Your task to perform on an android device: find photos in the google photos app Image 0: 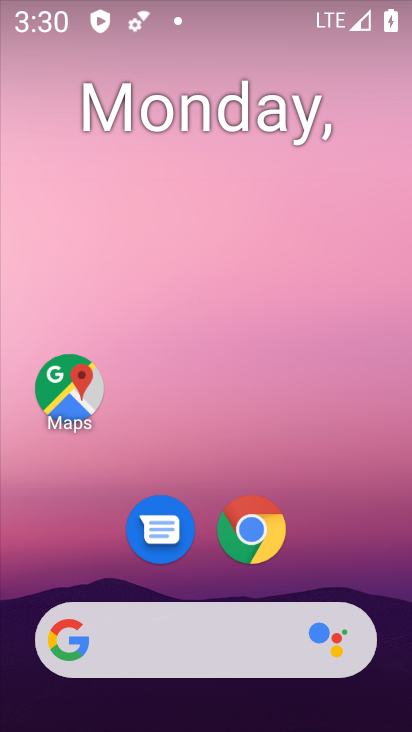
Step 0: drag from (226, 613) to (233, 175)
Your task to perform on an android device: find photos in the google photos app Image 1: 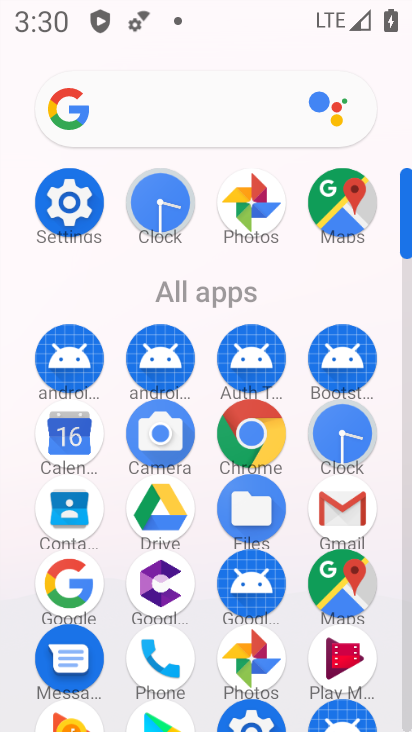
Step 1: click (253, 671)
Your task to perform on an android device: find photos in the google photos app Image 2: 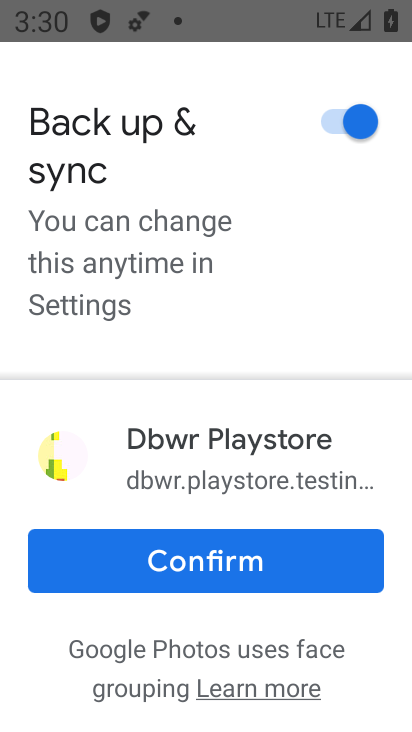
Step 2: click (217, 564)
Your task to perform on an android device: find photos in the google photos app Image 3: 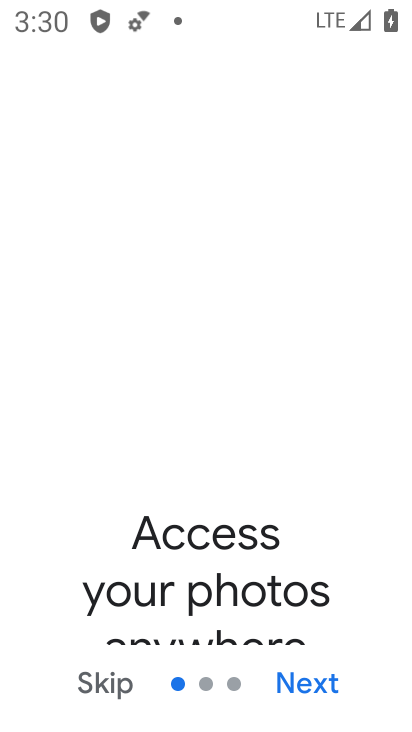
Step 3: click (299, 684)
Your task to perform on an android device: find photos in the google photos app Image 4: 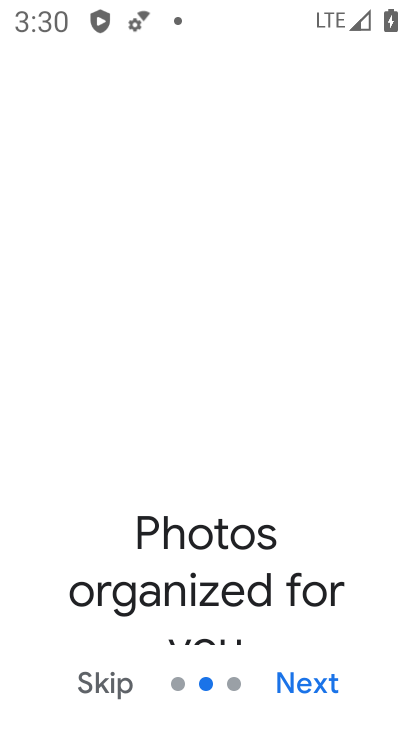
Step 4: click (299, 684)
Your task to perform on an android device: find photos in the google photos app Image 5: 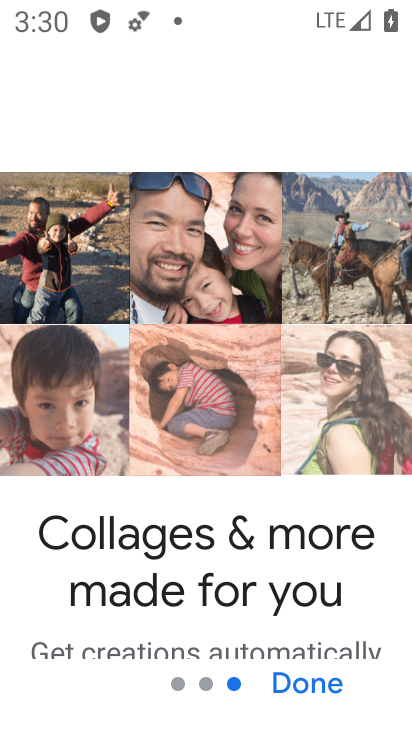
Step 5: click (299, 684)
Your task to perform on an android device: find photos in the google photos app Image 6: 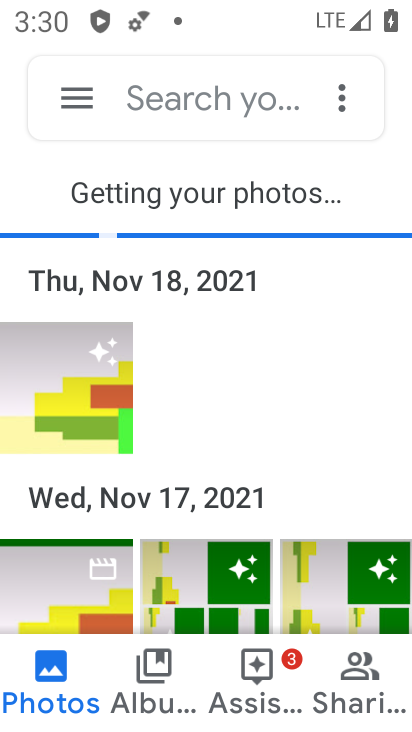
Step 6: task complete